Your task to perform on an android device: turn off smart reply in the gmail app Image 0: 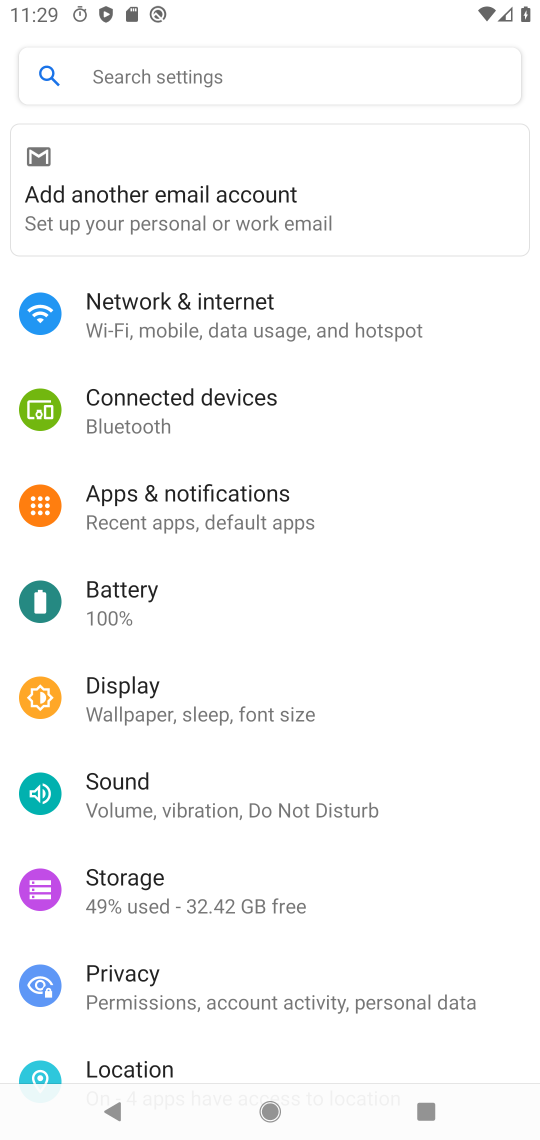
Step 0: press home button
Your task to perform on an android device: turn off smart reply in the gmail app Image 1: 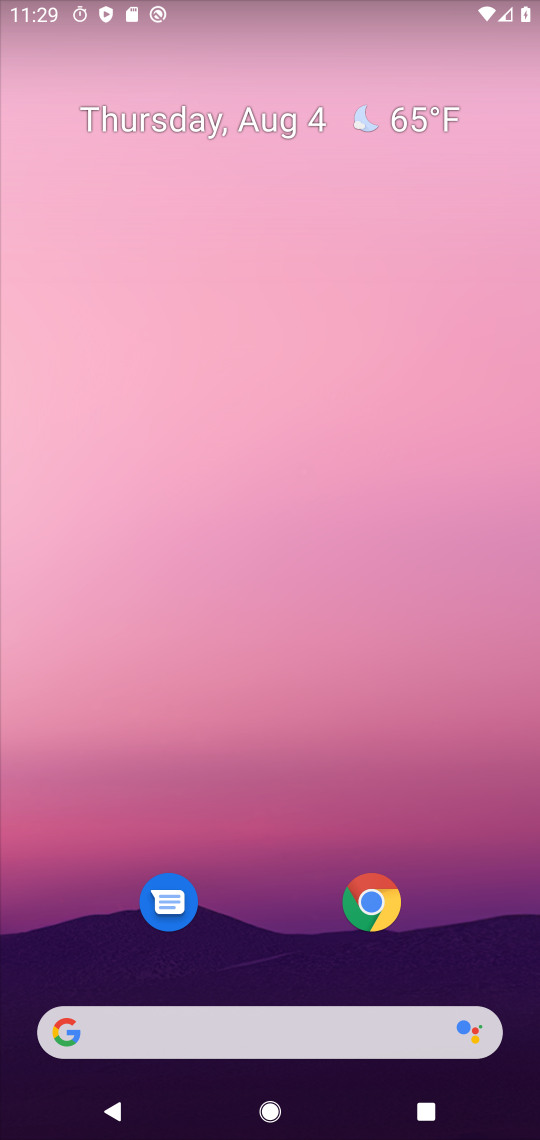
Step 1: drag from (311, 971) to (405, 411)
Your task to perform on an android device: turn off smart reply in the gmail app Image 2: 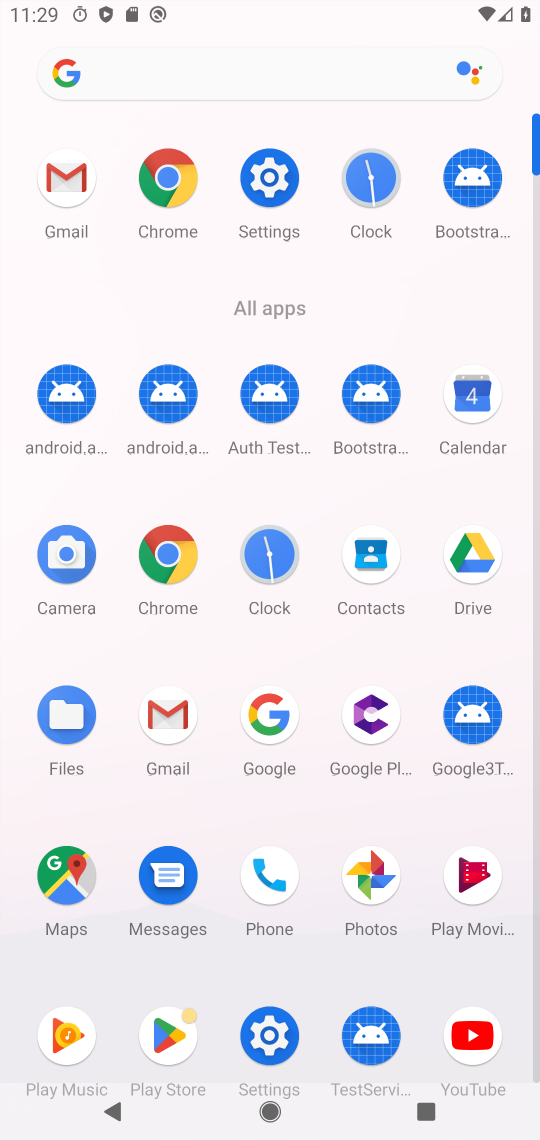
Step 2: click (190, 699)
Your task to perform on an android device: turn off smart reply in the gmail app Image 3: 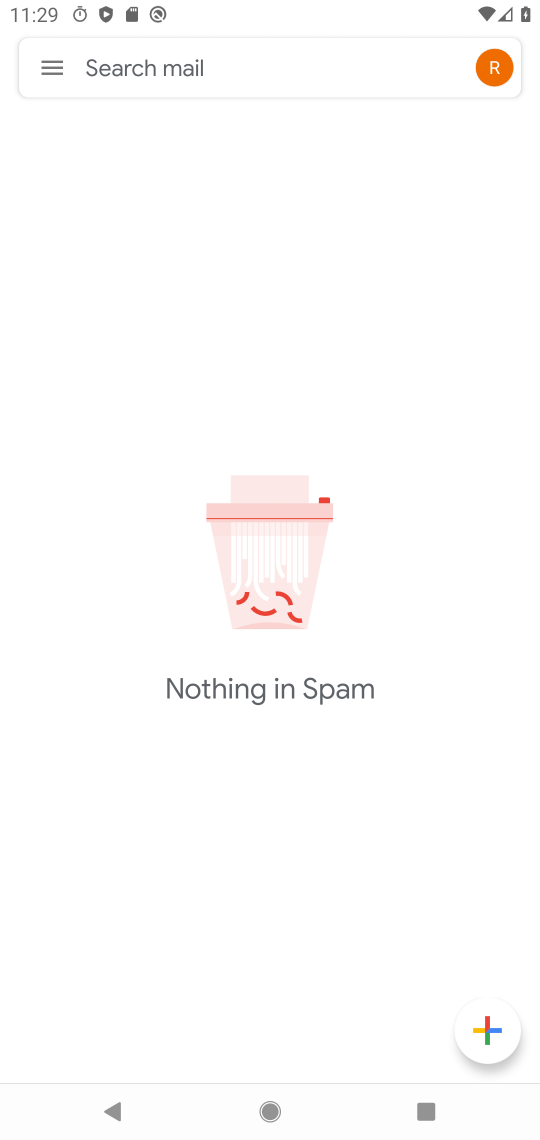
Step 3: click (68, 81)
Your task to perform on an android device: turn off smart reply in the gmail app Image 4: 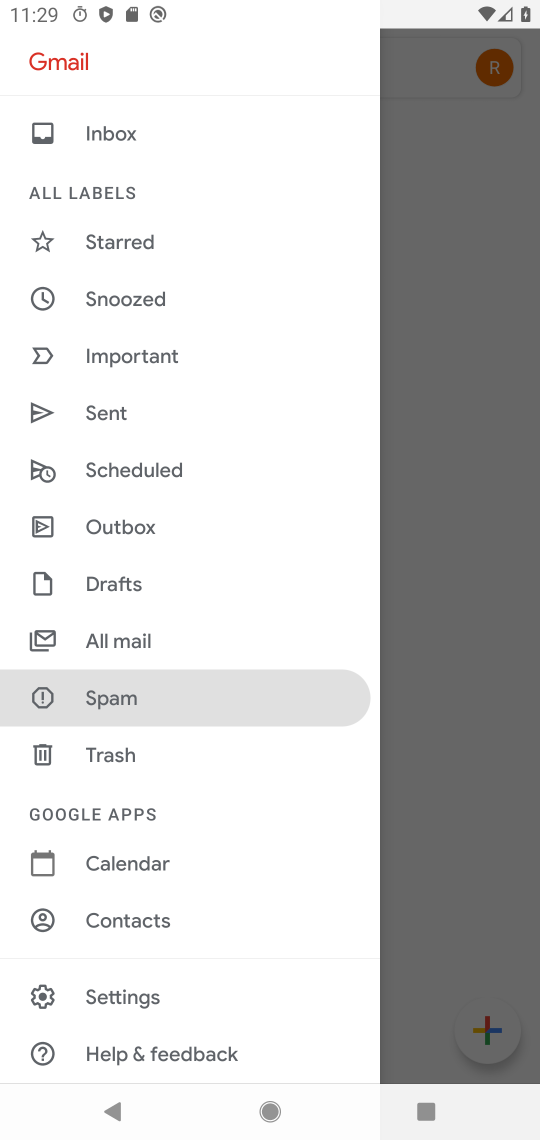
Step 4: click (186, 995)
Your task to perform on an android device: turn off smart reply in the gmail app Image 5: 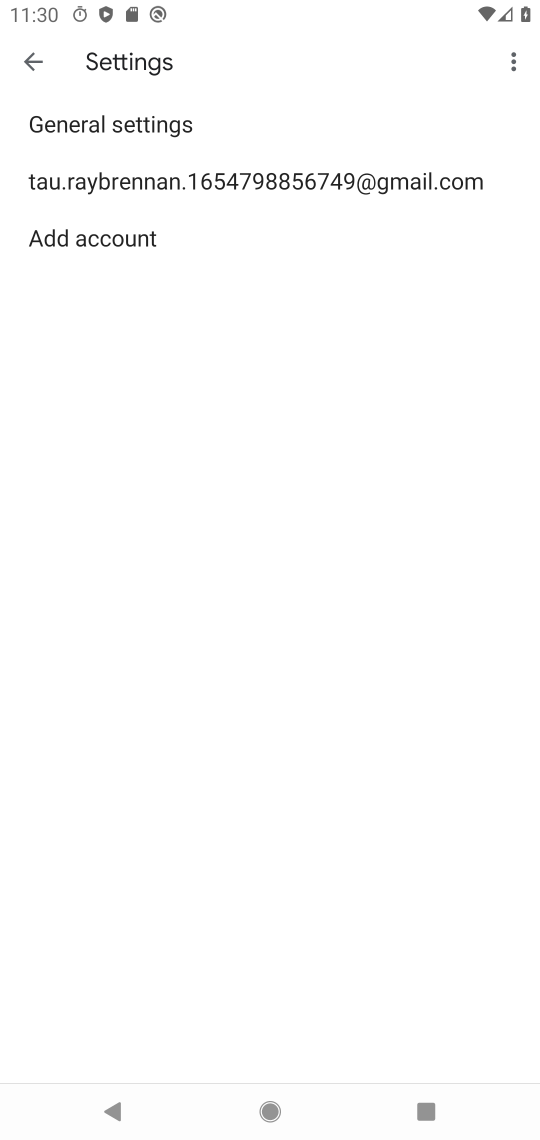
Step 5: click (242, 195)
Your task to perform on an android device: turn off smart reply in the gmail app Image 6: 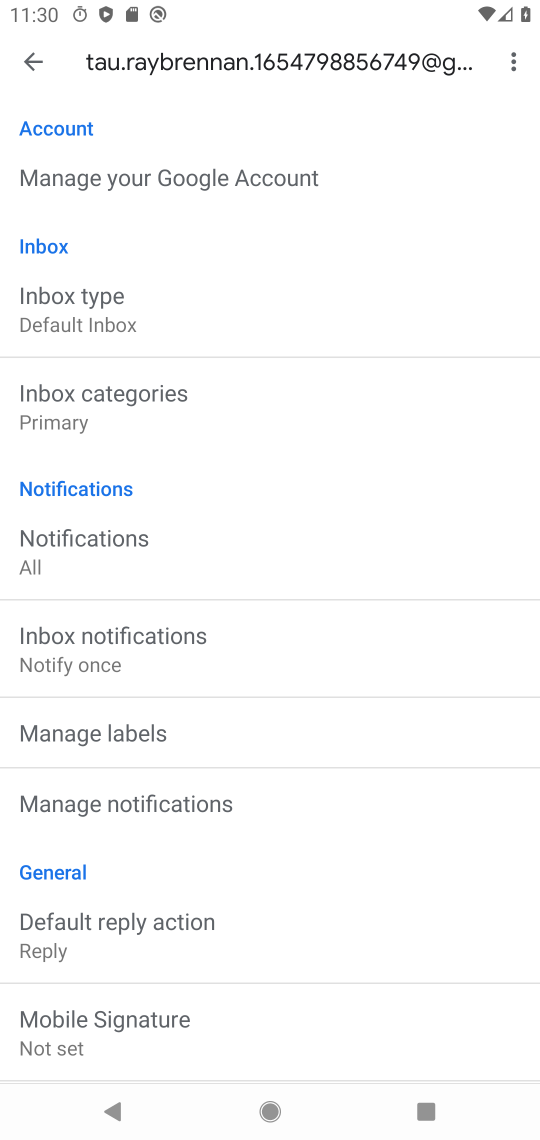
Step 6: drag from (196, 1014) to (289, 478)
Your task to perform on an android device: turn off smart reply in the gmail app Image 7: 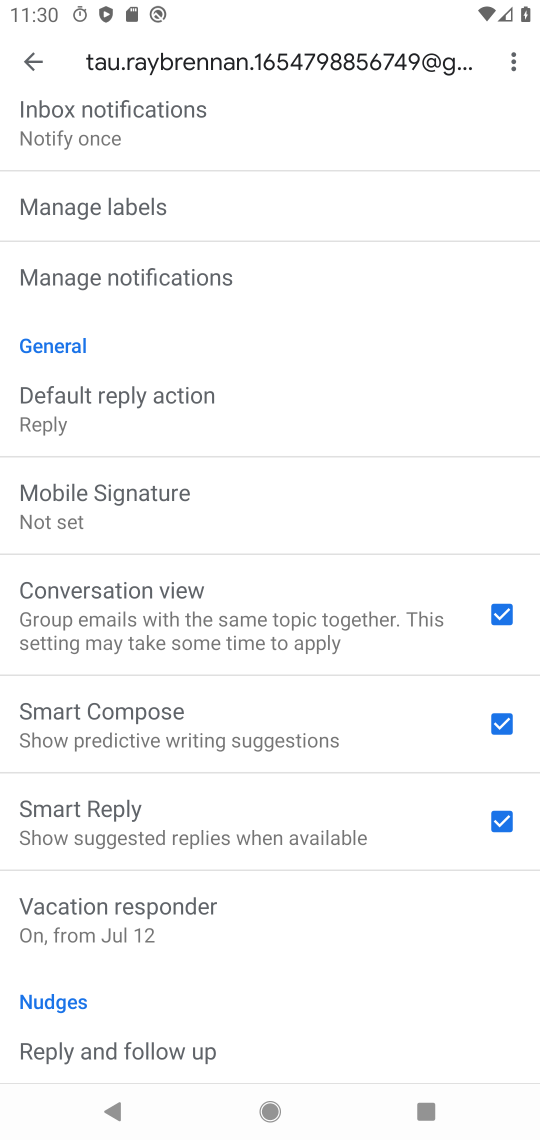
Step 7: click (398, 815)
Your task to perform on an android device: turn off smart reply in the gmail app Image 8: 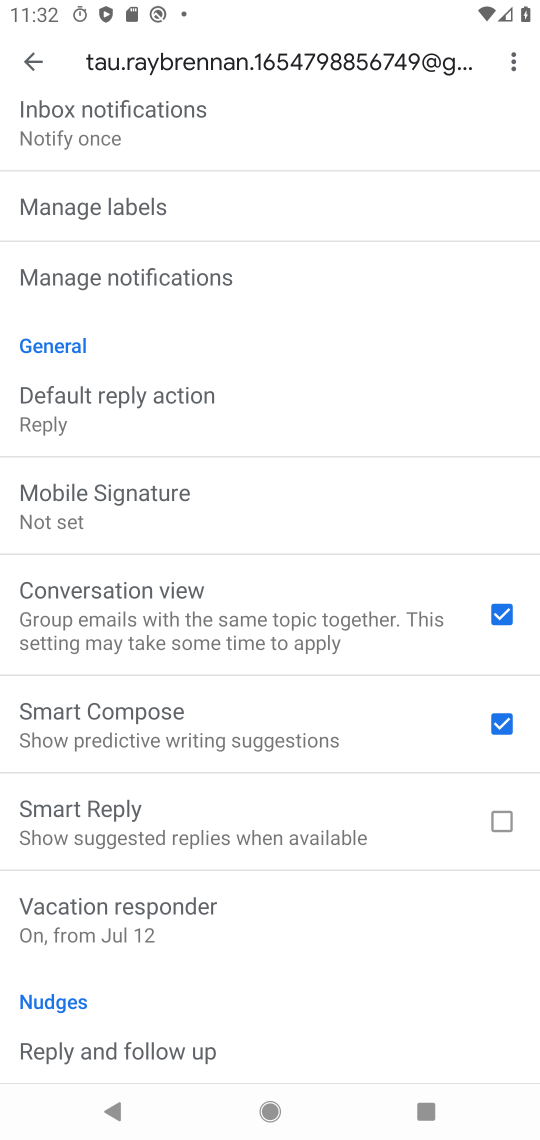
Step 8: task complete